Your task to perform on an android device: Show me the alarms in the clock app Image 0: 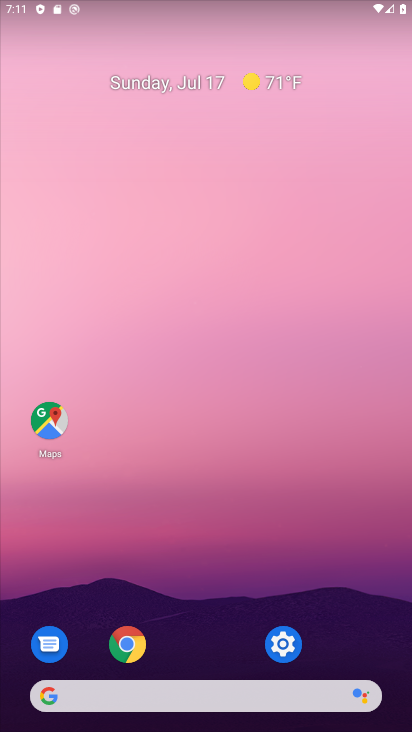
Step 0: press home button
Your task to perform on an android device: Show me the alarms in the clock app Image 1: 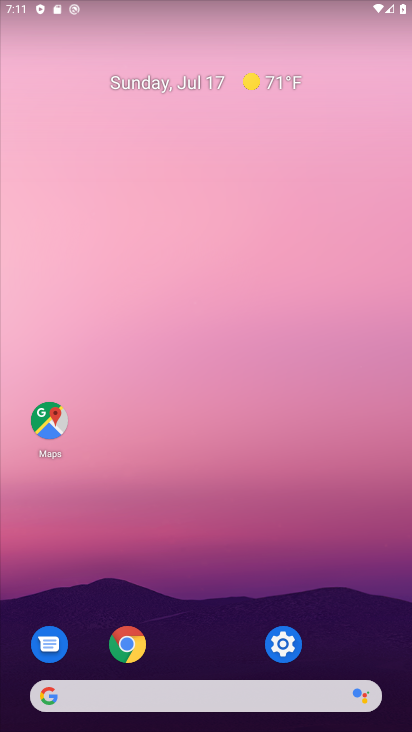
Step 1: drag from (234, 719) to (222, 129)
Your task to perform on an android device: Show me the alarms in the clock app Image 2: 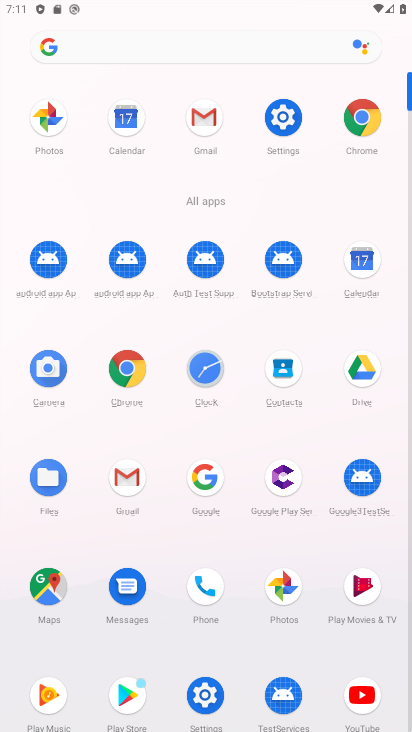
Step 2: click (201, 363)
Your task to perform on an android device: Show me the alarms in the clock app Image 3: 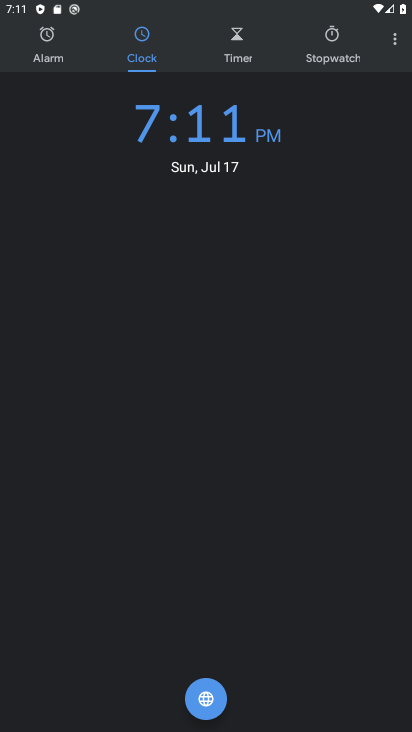
Step 3: click (50, 44)
Your task to perform on an android device: Show me the alarms in the clock app Image 4: 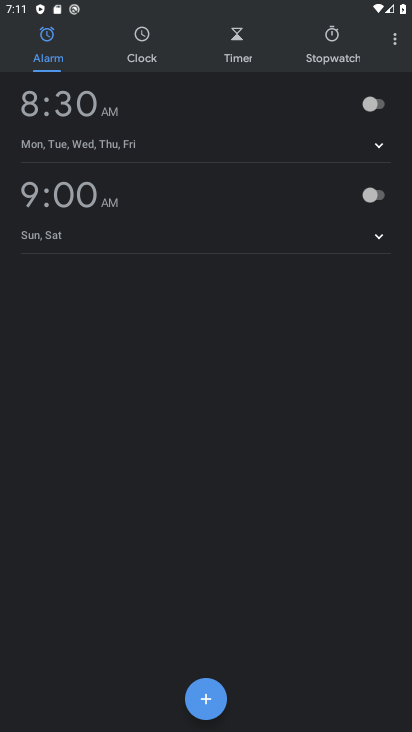
Step 4: task complete